Your task to perform on an android device: move an email to a new category in the gmail app Image 0: 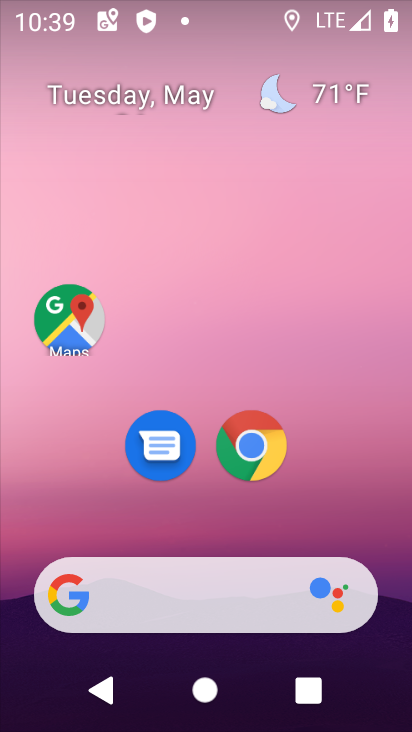
Step 0: drag from (325, 524) to (291, 195)
Your task to perform on an android device: move an email to a new category in the gmail app Image 1: 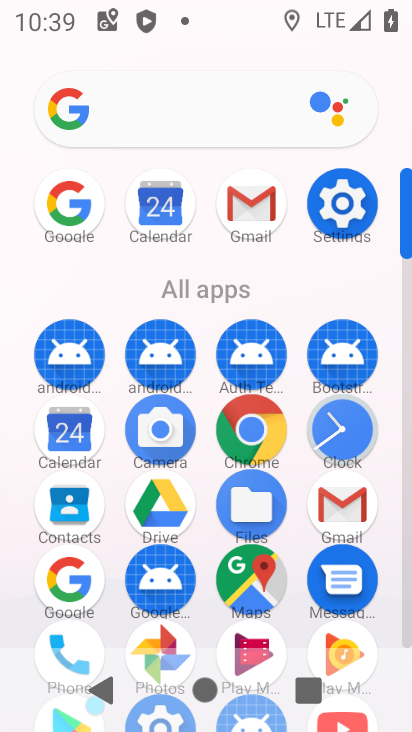
Step 1: click (256, 202)
Your task to perform on an android device: move an email to a new category in the gmail app Image 2: 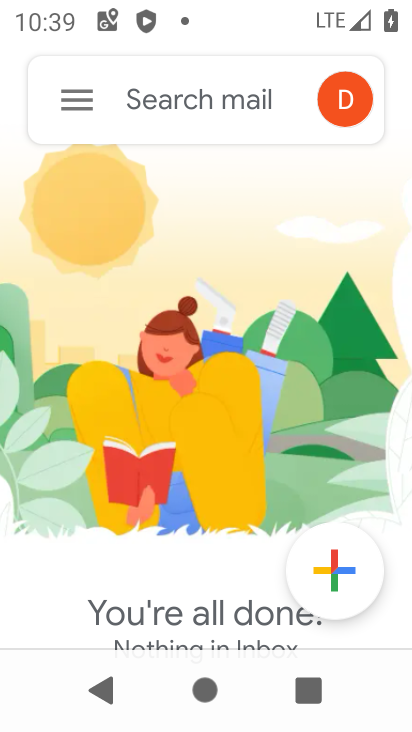
Step 2: click (80, 102)
Your task to perform on an android device: move an email to a new category in the gmail app Image 3: 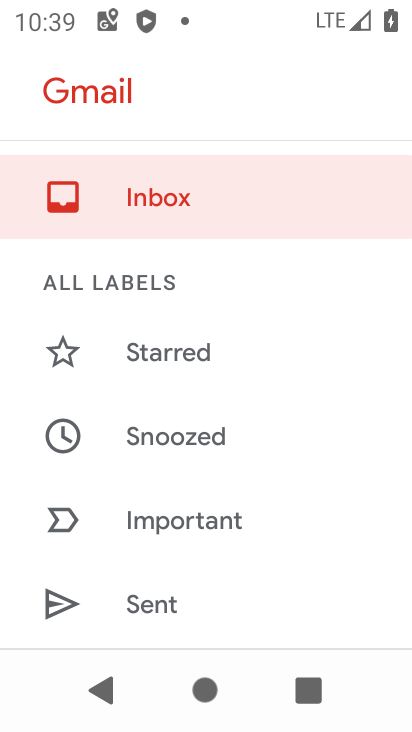
Step 3: drag from (159, 408) to (255, 275)
Your task to perform on an android device: move an email to a new category in the gmail app Image 4: 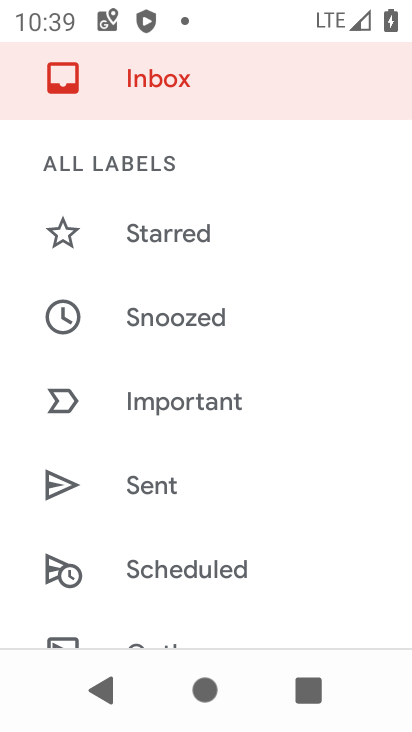
Step 4: drag from (215, 461) to (249, 401)
Your task to perform on an android device: move an email to a new category in the gmail app Image 5: 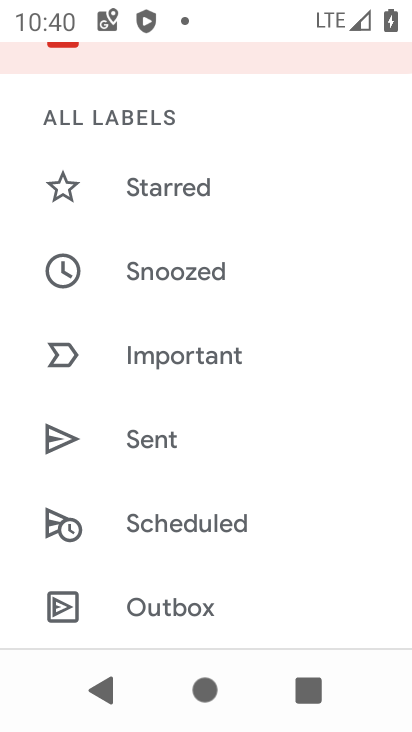
Step 5: drag from (178, 576) to (272, 357)
Your task to perform on an android device: move an email to a new category in the gmail app Image 6: 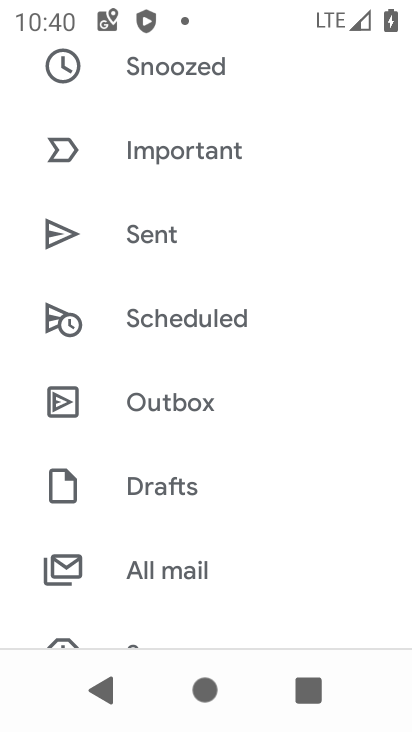
Step 6: drag from (213, 491) to (234, 457)
Your task to perform on an android device: move an email to a new category in the gmail app Image 7: 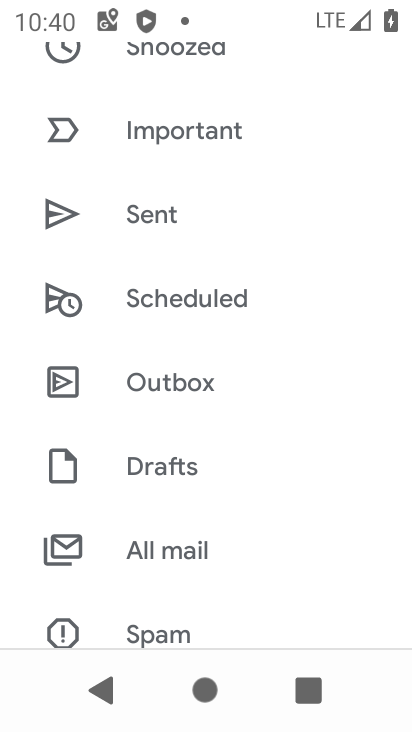
Step 7: click (192, 566)
Your task to perform on an android device: move an email to a new category in the gmail app Image 8: 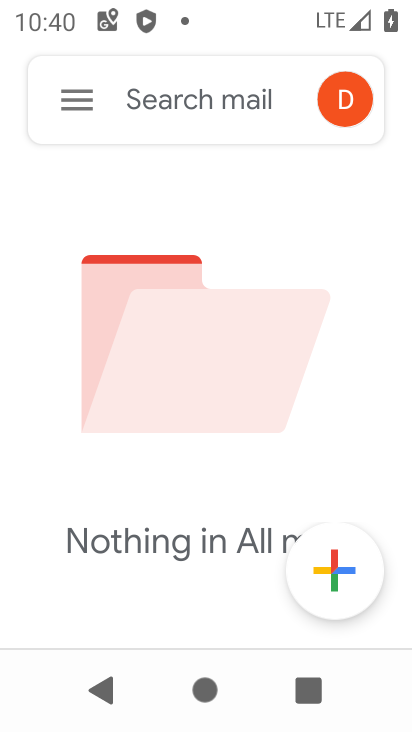
Step 8: click (76, 96)
Your task to perform on an android device: move an email to a new category in the gmail app Image 9: 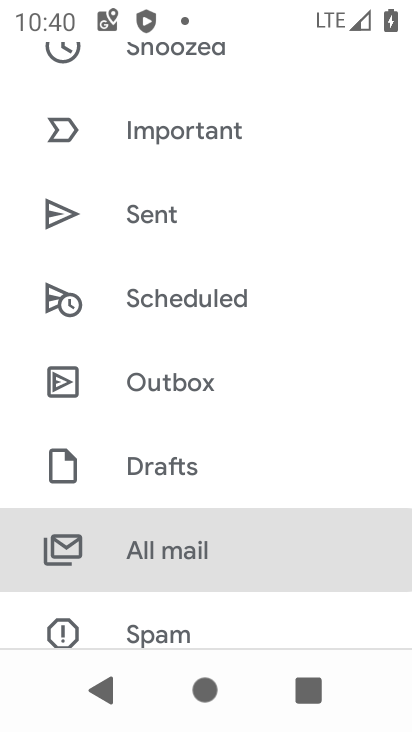
Step 9: click (330, 444)
Your task to perform on an android device: move an email to a new category in the gmail app Image 10: 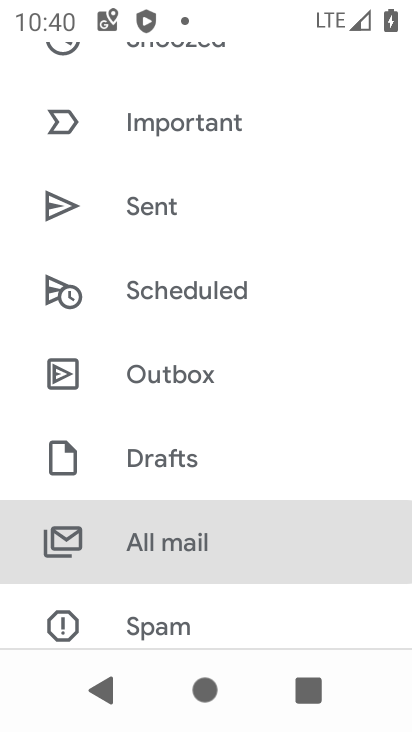
Step 10: click (313, 397)
Your task to perform on an android device: move an email to a new category in the gmail app Image 11: 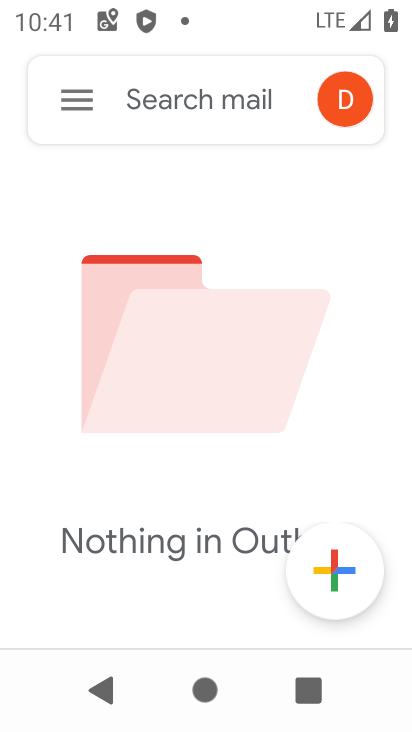
Step 11: click (79, 105)
Your task to perform on an android device: move an email to a new category in the gmail app Image 12: 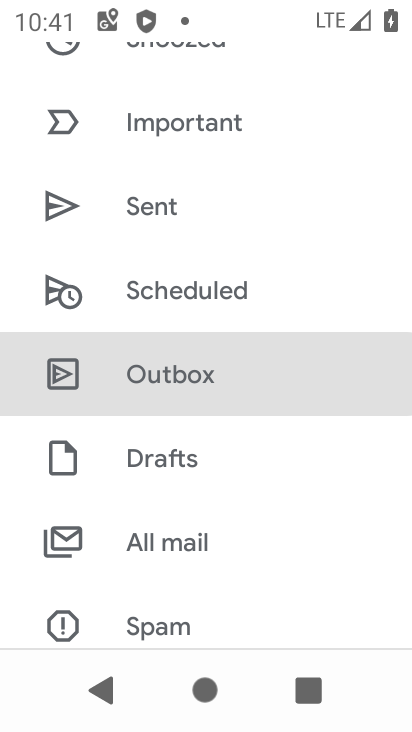
Step 12: drag from (242, 453) to (271, 341)
Your task to perform on an android device: move an email to a new category in the gmail app Image 13: 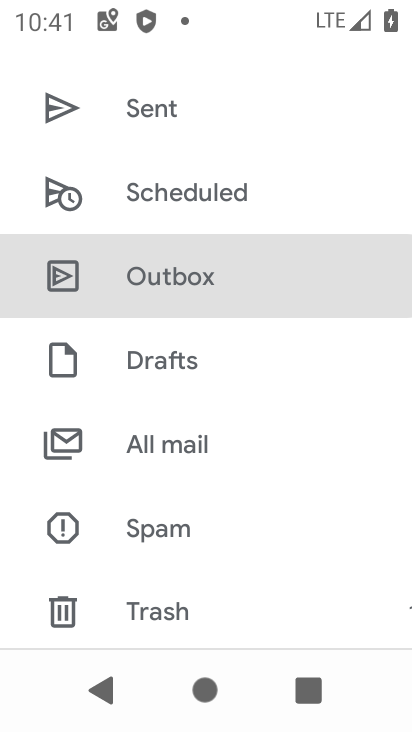
Step 13: drag from (207, 475) to (246, 377)
Your task to perform on an android device: move an email to a new category in the gmail app Image 14: 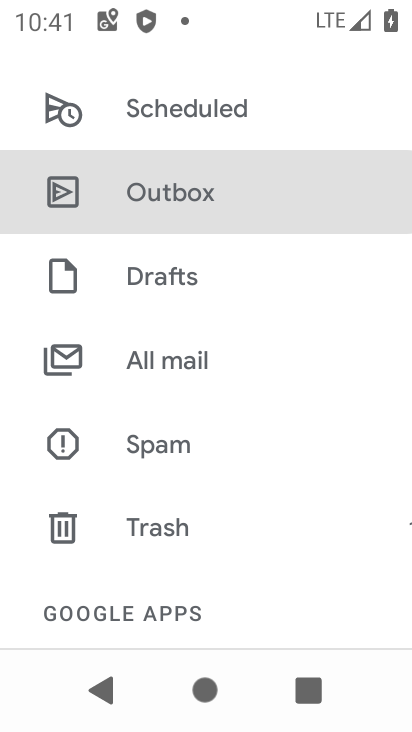
Step 14: click (204, 373)
Your task to perform on an android device: move an email to a new category in the gmail app Image 15: 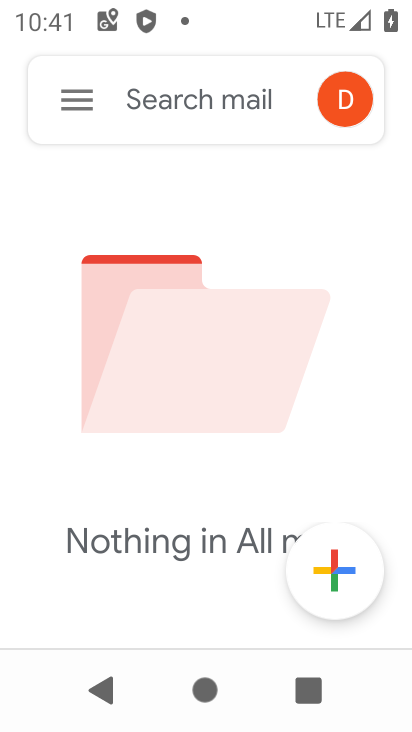
Step 15: task complete